Your task to perform on an android device: remove spam from my inbox in the gmail app Image 0: 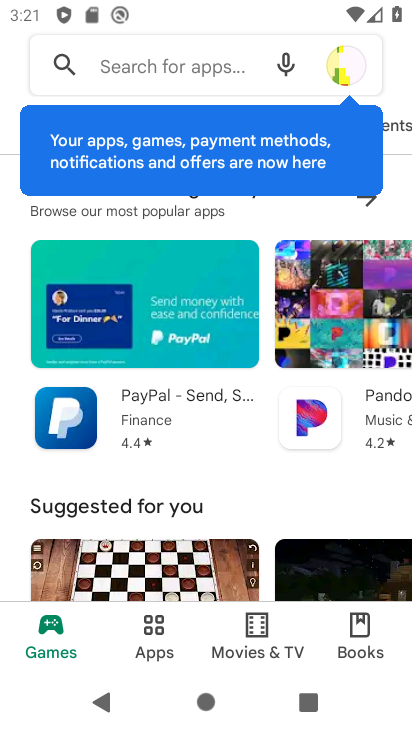
Step 0: press home button
Your task to perform on an android device: remove spam from my inbox in the gmail app Image 1: 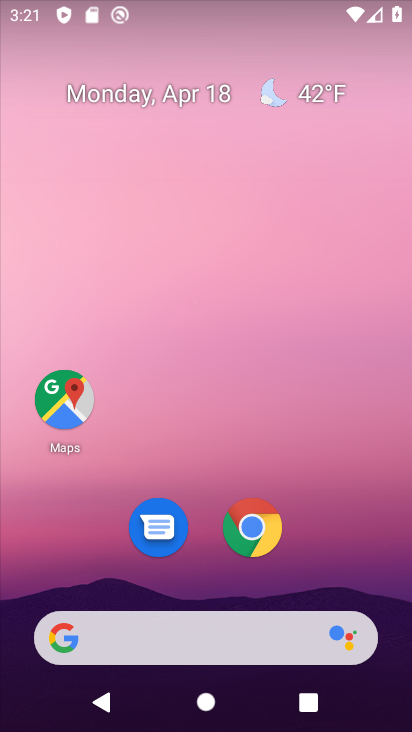
Step 1: drag from (404, 596) to (343, 52)
Your task to perform on an android device: remove spam from my inbox in the gmail app Image 2: 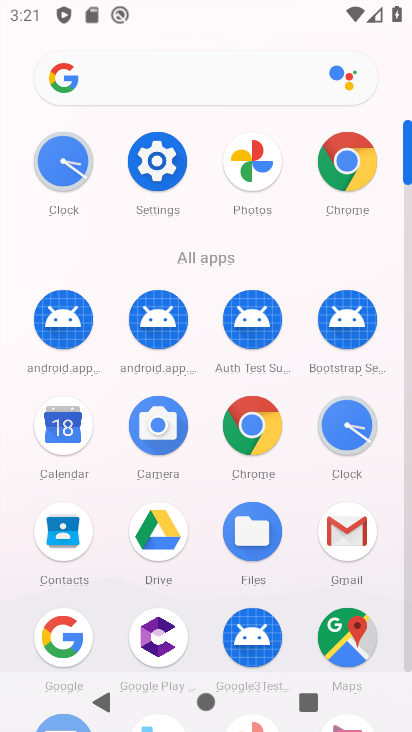
Step 2: click (408, 659)
Your task to perform on an android device: remove spam from my inbox in the gmail app Image 3: 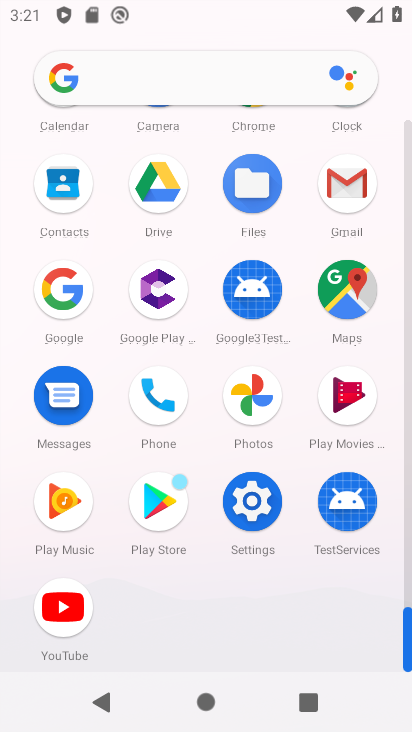
Step 3: click (340, 177)
Your task to perform on an android device: remove spam from my inbox in the gmail app Image 4: 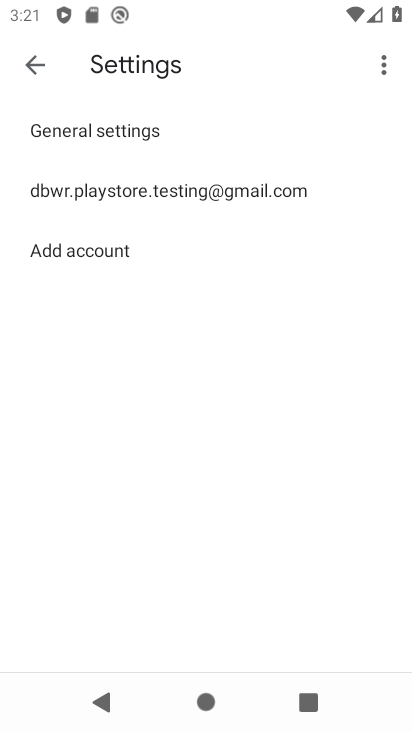
Step 4: press back button
Your task to perform on an android device: remove spam from my inbox in the gmail app Image 5: 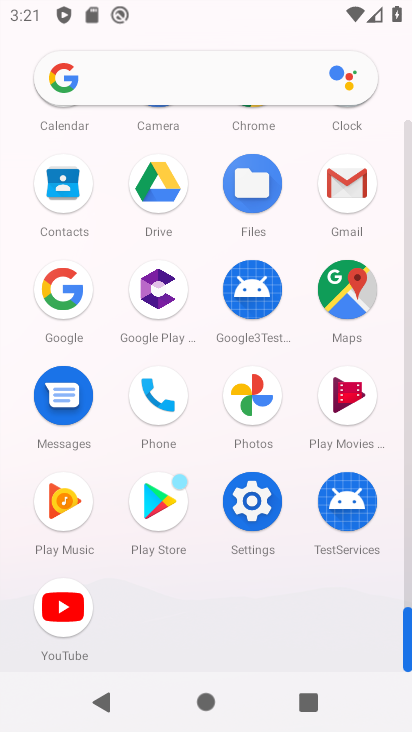
Step 5: click (343, 181)
Your task to perform on an android device: remove spam from my inbox in the gmail app Image 6: 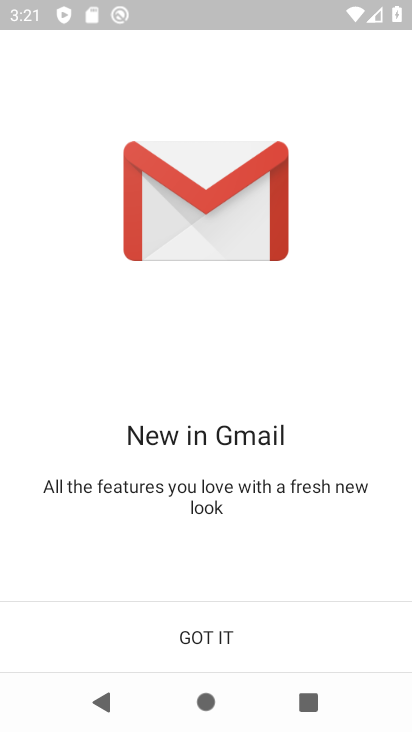
Step 6: click (201, 634)
Your task to perform on an android device: remove spam from my inbox in the gmail app Image 7: 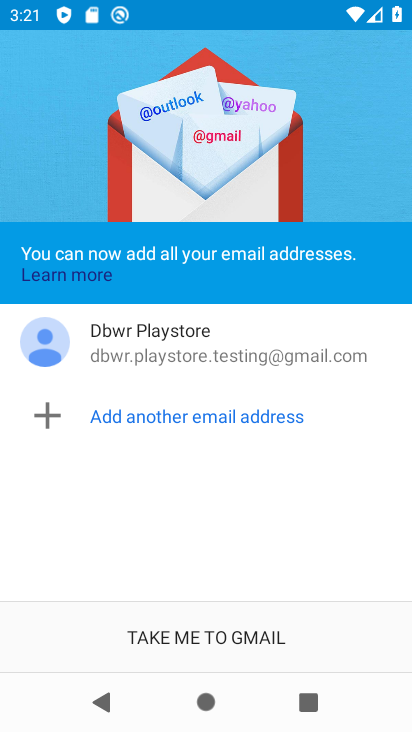
Step 7: click (201, 634)
Your task to perform on an android device: remove spam from my inbox in the gmail app Image 8: 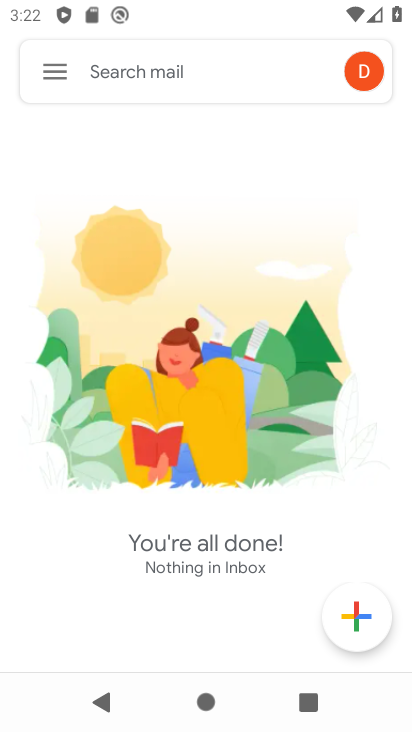
Step 8: click (49, 67)
Your task to perform on an android device: remove spam from my inbox in the gmail app Image 9: 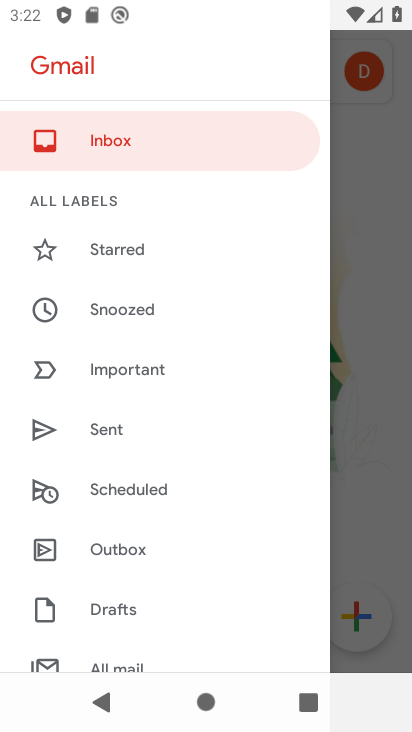
Step 9: drag from (187, 553) to (193, 153)
Your task to perform on an android device: remove spam from my inbox in the gmail app Image 10: 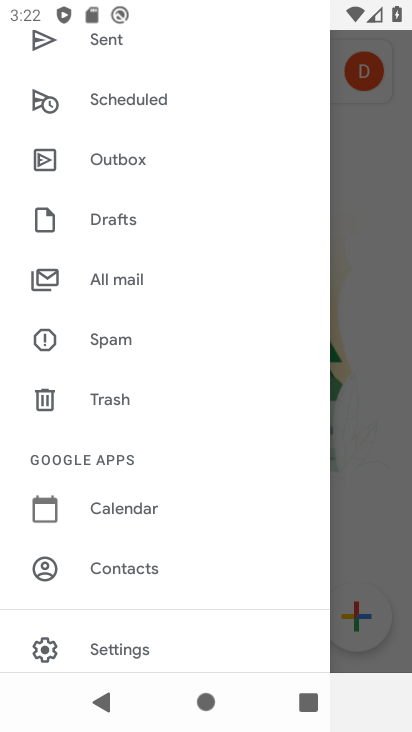
Step 10: click (108, 336)
Your task to perform on an android device: remove spam from my inbox in the gmail app Image 11: 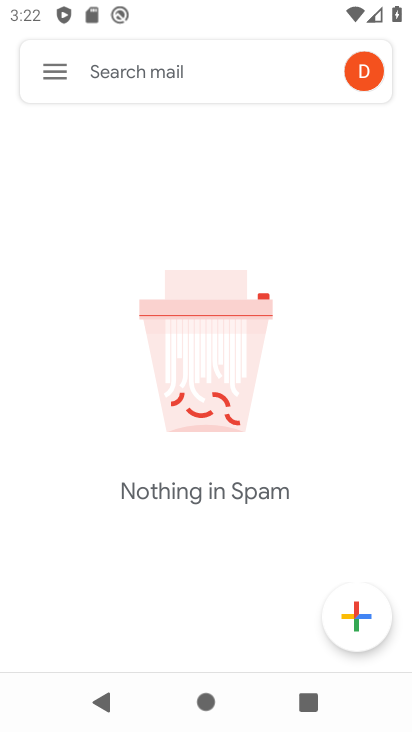
Step 11: task complete